Your task to perform on an android device: Go to privacy settings Image 0: 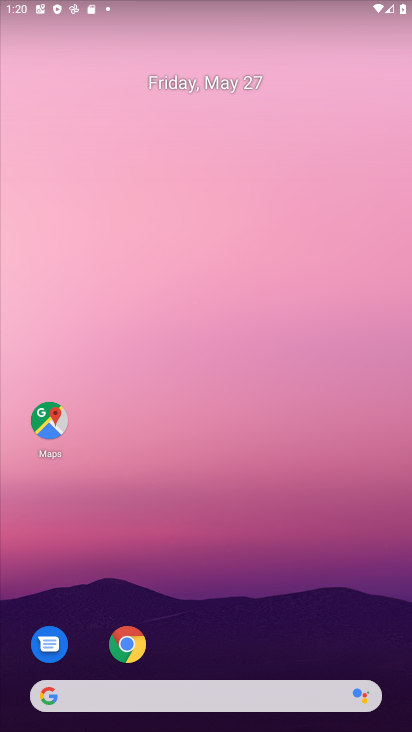
Step 0: drag from (289, 656) to (273, 42)
Your task to perform on an android device: Go to privacy settings Image 1: 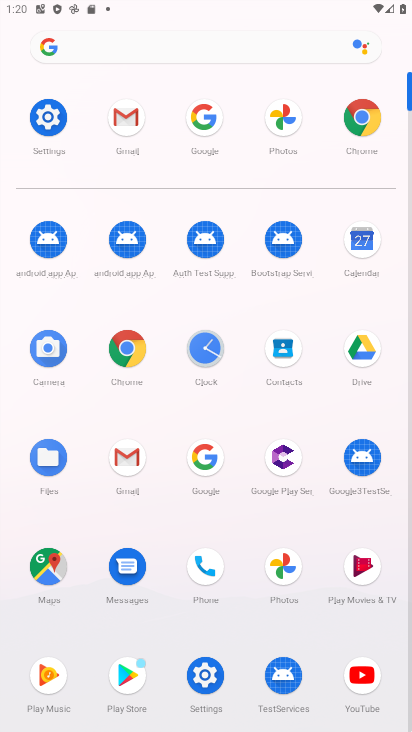
Step 1: click (42, 112)
Your task to perform on an android device: Go to privacy settings Image 2: 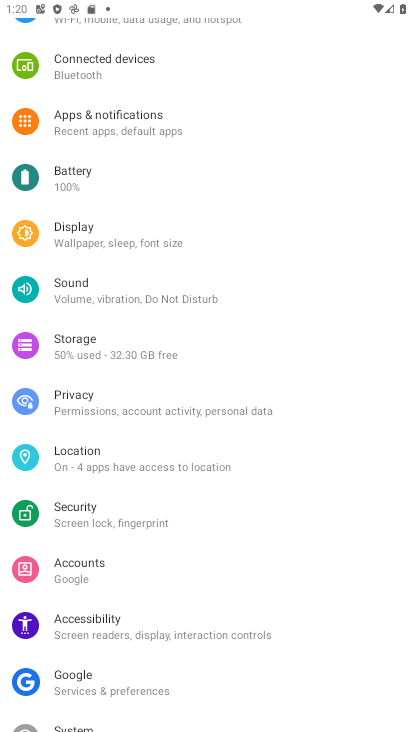
Step 2: click (94, 402)
Your task to perform on an android device: Go to privacy settings Image 3: 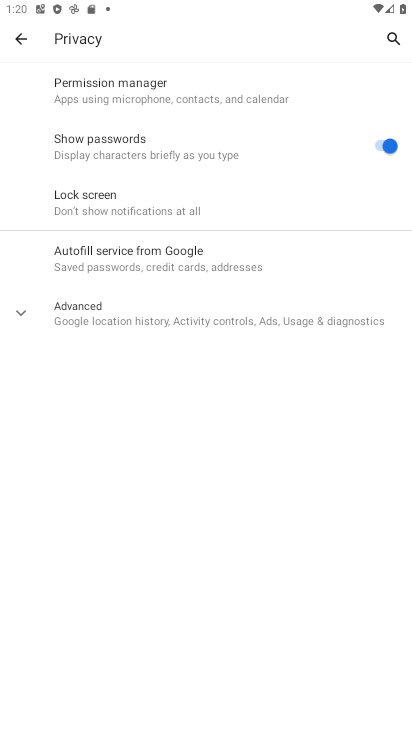
Step 3: task complete